Your task to perform on an android device: check google app version Image 0: 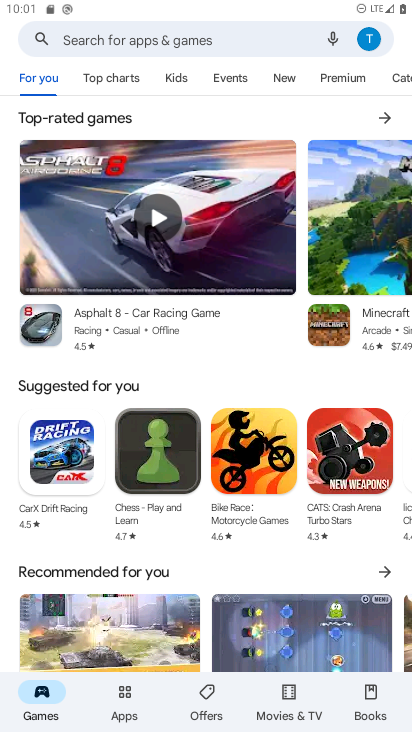
Step 0: press home button
Your task to perform on an android device: check google app version Image 1: 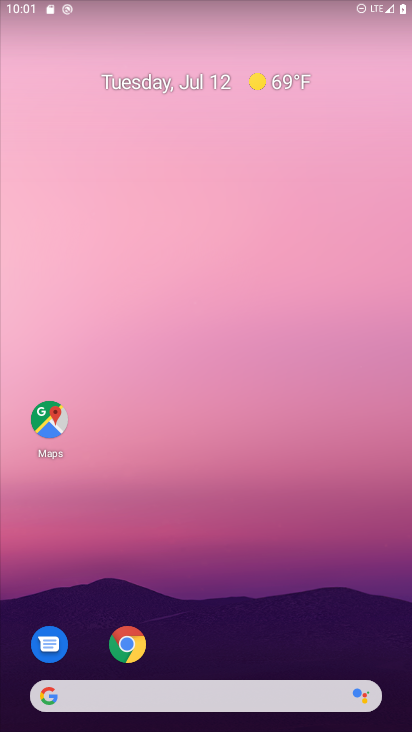
Step 1: drag from (224, 641) to (215, 170)
Your task to perform on an android device: check google app version Image 2: 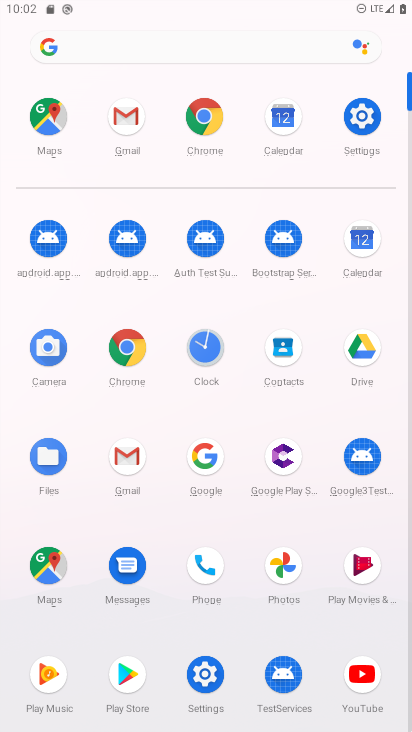
Step 2: click (207, 453)
Your task to perform on an android device: check google app version Image 3: 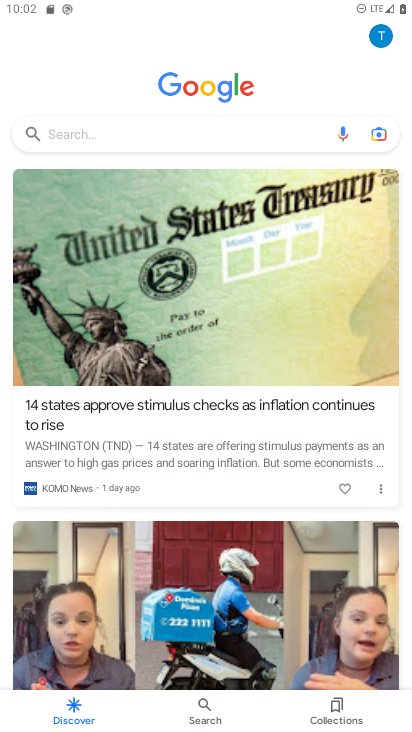
Step 3: click (379, 31)
Your task to perform on an android device: check google app version Image 4: 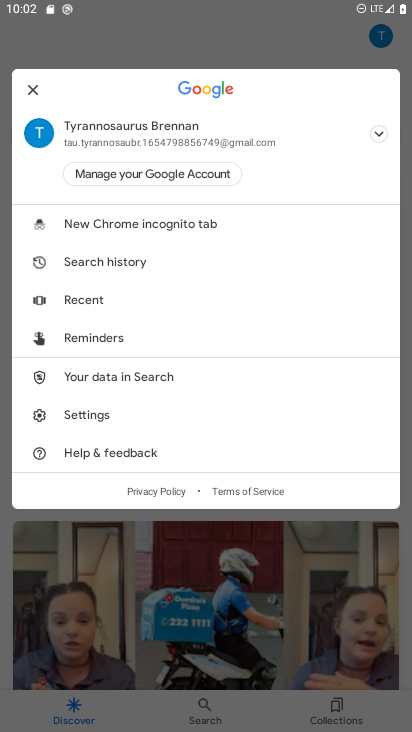
Step 4: click (101, 411)
Your task to perform on an android device: check google app version Image 5: 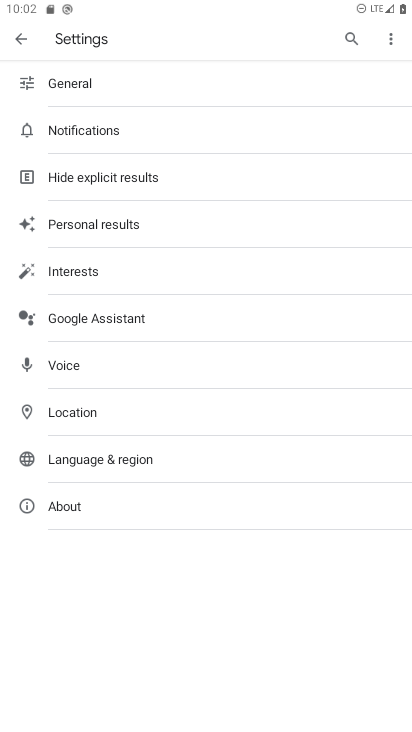
Step 5: click (88, 501)
Your task to perform on an android device: check google app version Image 6: 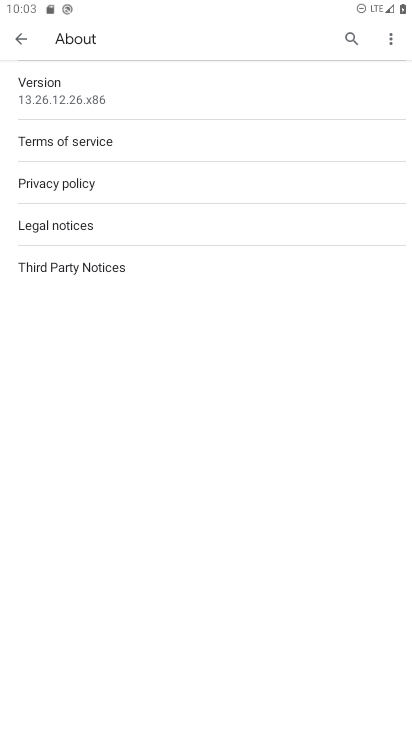
Step 6: task complete